Your task to perform on an android device: read, delete, or share a saved page in the chrome app Image 0: 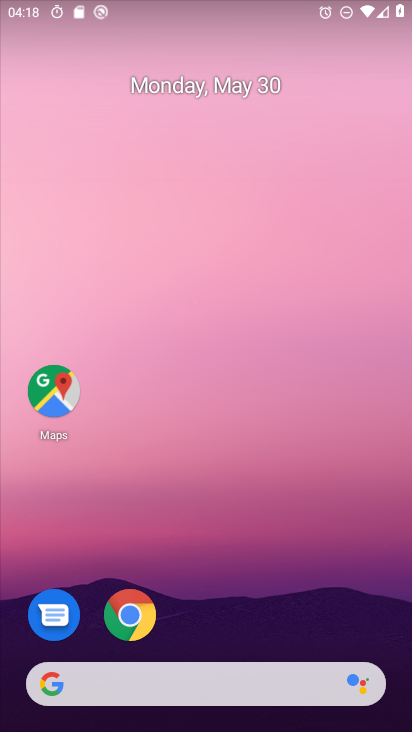
Step 0: click (131, 613)
Your task to perform on an android device: read, delete, or share a saved page in the chrome app Image 1: 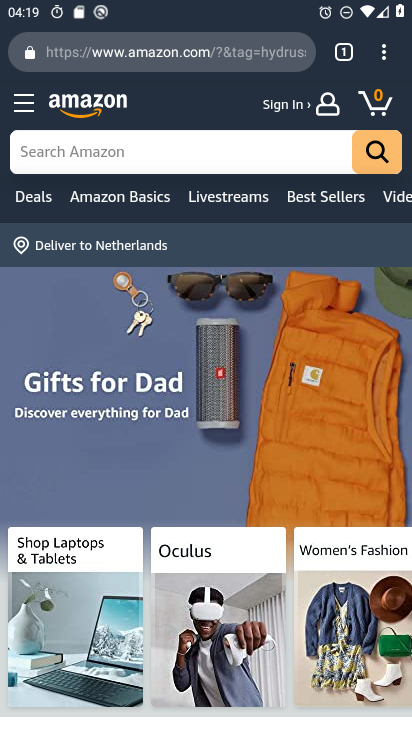
Step 1: click (386, 54)
Your task to perform on an android device: read, delete, or share a saved page in the chrome app Image 2: 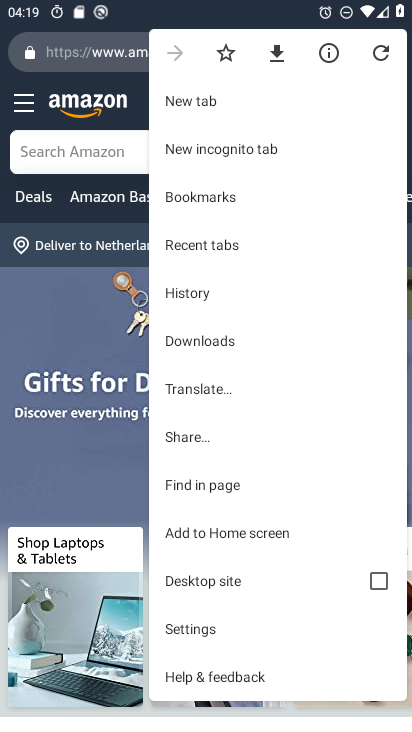
Step 2: click (205, 339)
Your task to perform on an android device: read, delete, or share a saved page in the chrome app Image 3: 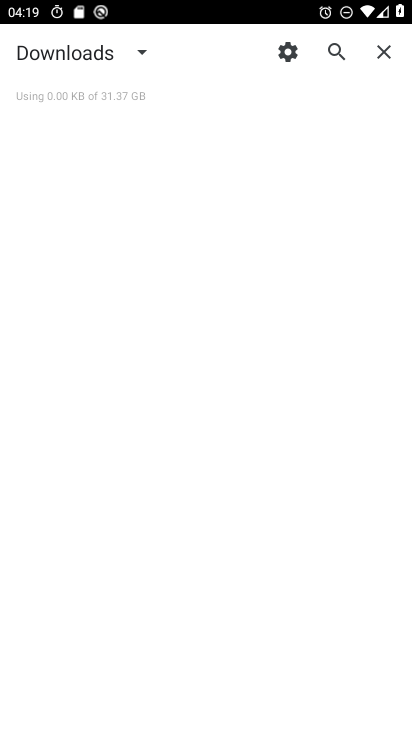
Step 3: click (137, 45)
Your task to perform on an android device: read, delete, or share a saved page in the chrome app Image 4: 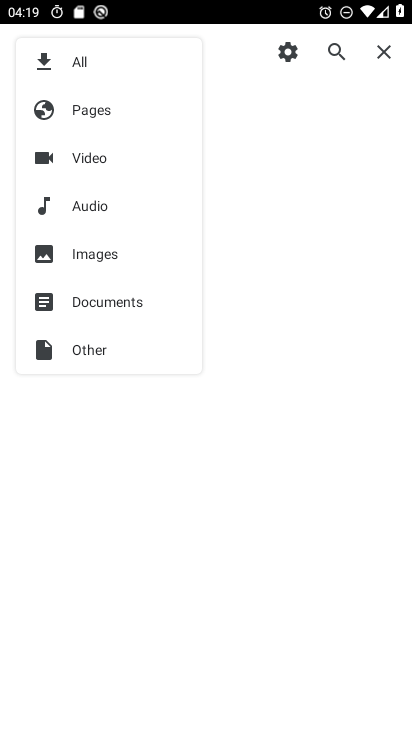
Step 4: click (84, 114)
Your task to perform on an android device: read, delete, or share a saved page in the chrome app Image 5: 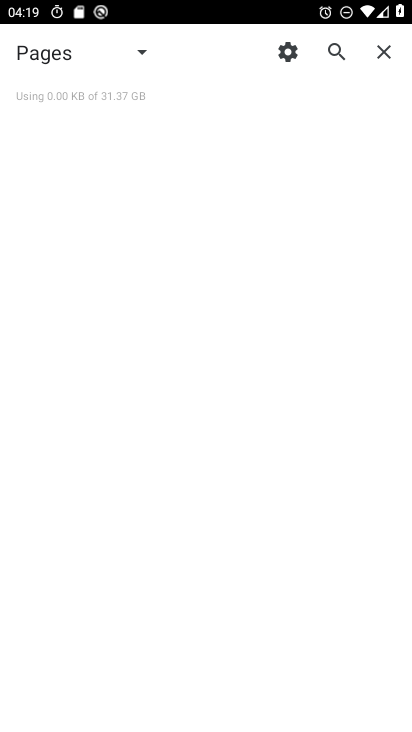
Step 5: task complete